Your task to perform on an android device: turn off priority inbox in the gmail app Image 0: 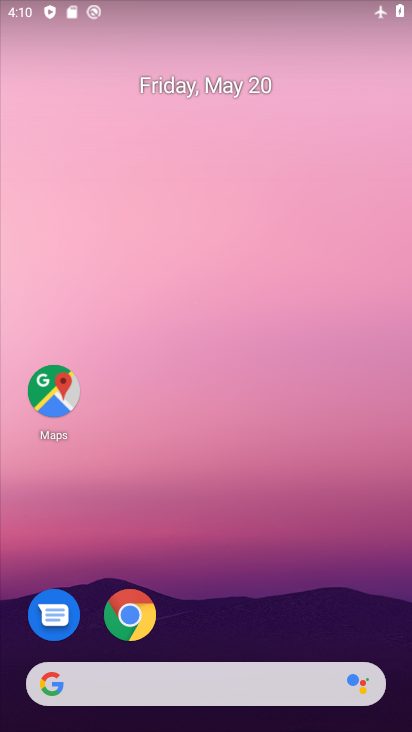
Step 0: drag from (211, 632) to (249, 111)
Your task to perform on an android device: turn off priority inbox in the gmail app Image 1: 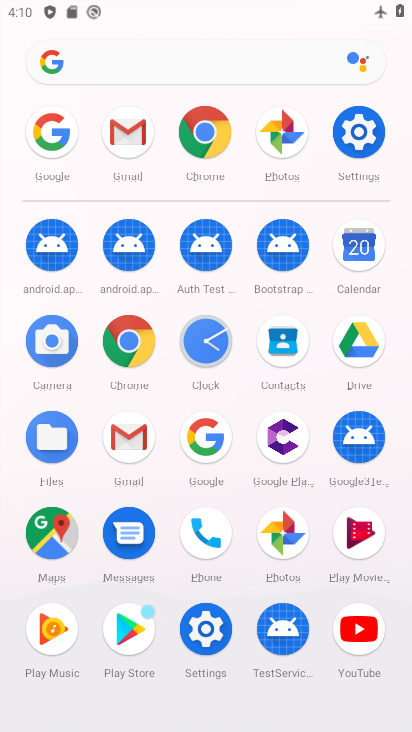
Step 1: click (137, 450)
Your task to perform on an android device: turn off priority inbox in the gmail app Image 2: 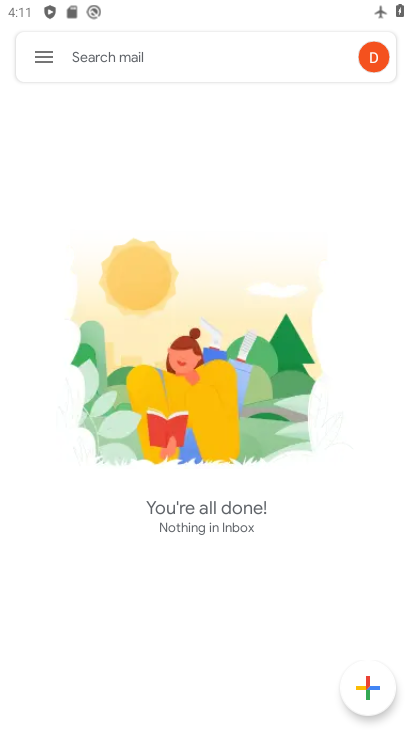
Step 2: click (43, 48)
Your task to perform on an android device: turn off priority inbox in the gmail app Image 3: 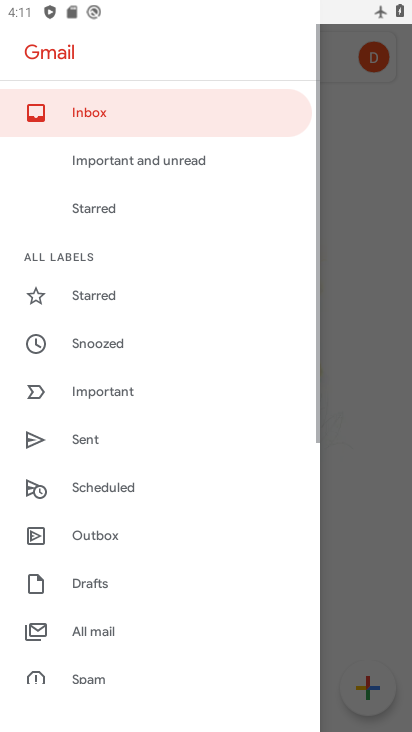
Step 3: drag from (126, 586) to (200, 172)
Your task to perform on an android device: turn off priority inbox in the gmail app Image 4: 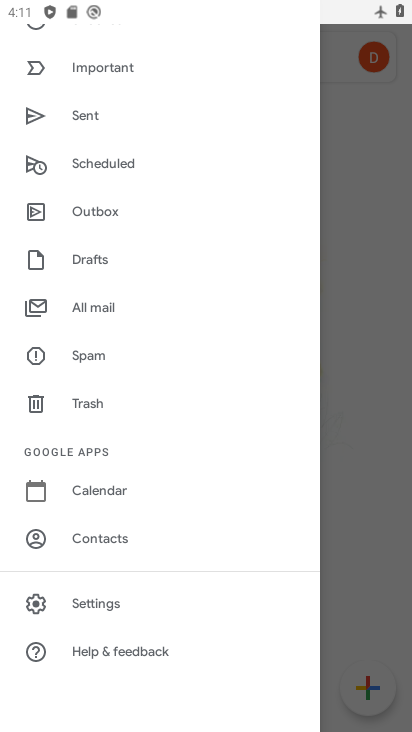
Step 4: click (87, 603)
Your task to perform on an android device: turn off priority inbox in the gmail app Image 5: 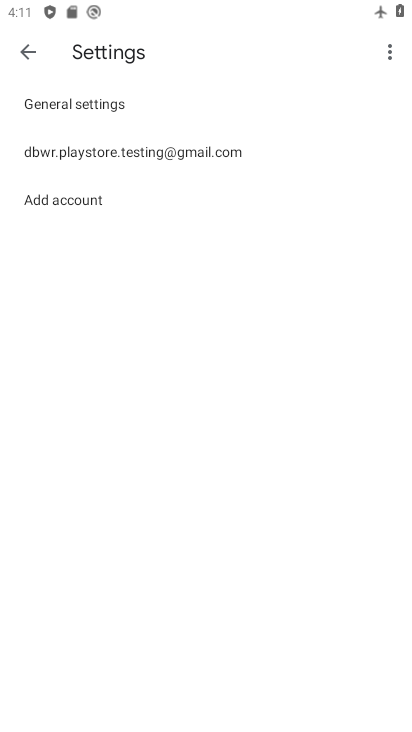
Step 5: click (144, 144)
Your task to perform on an android device: turn off priority inbox in the gmail app Image 6: 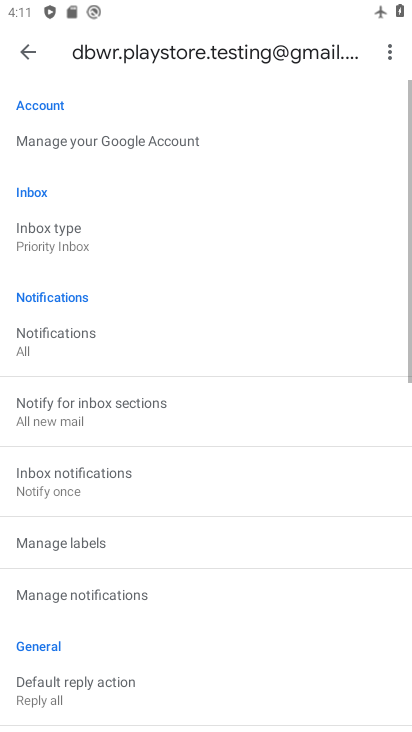
Step 6: click (157, 240)
Your task to perform on an android device: turn off priority inbox in the gmail app Image 7: 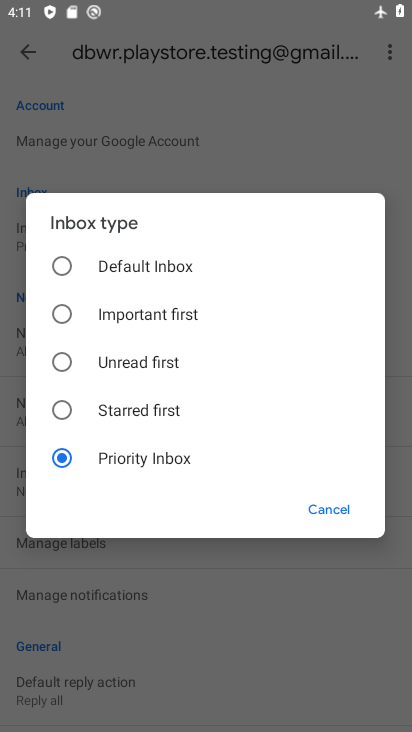
Step 7: click (46, 270)
Your task to perform on an android device: turn off priority inbox in the gmail app Image 8: 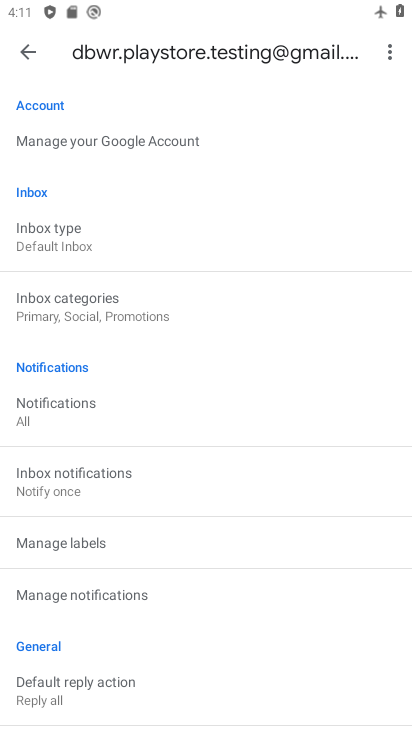
Step 8: task complete